Your task to perform on an android device: see sites visited before in the chrome app Image 0: 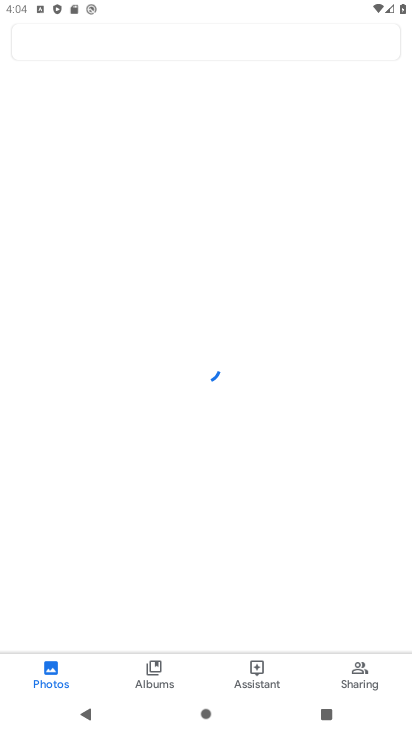
Step 0: press home button
Your task to perform on an android device: see sites visited before in the chrome app Image 1: 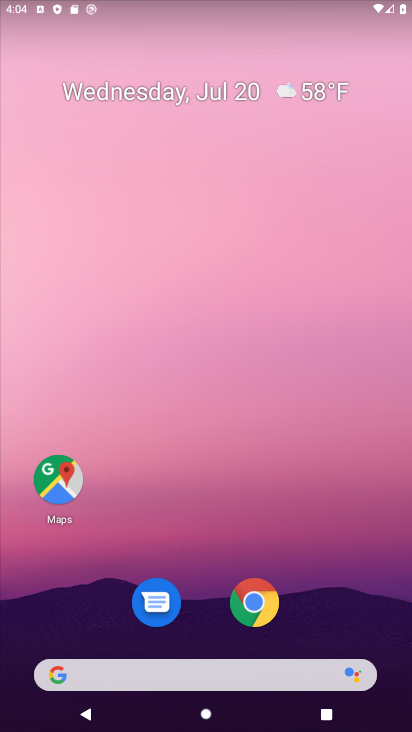
Step 1: click (246, 599)
Your task to perform on an android device: see sites visited before in the chrome app Image 2: 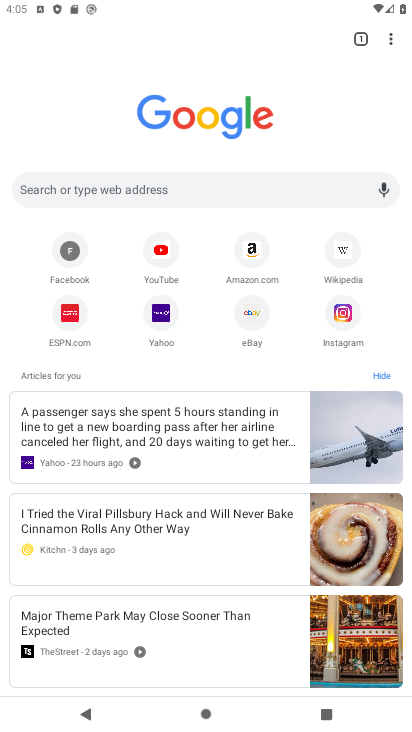
Step 2: click (389, 38)
Your task to perform on an android device: see sites visited before in the chrome app Image 3: 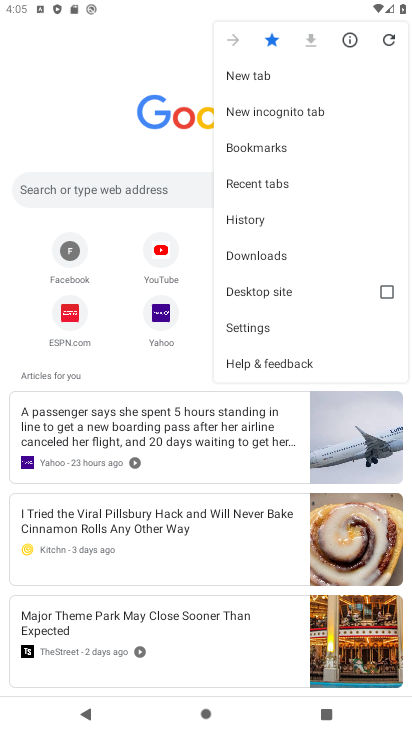
Step 3: click (261, 216)
Your task to perform on an android device: see sites visited before in the chrome app Image 4: 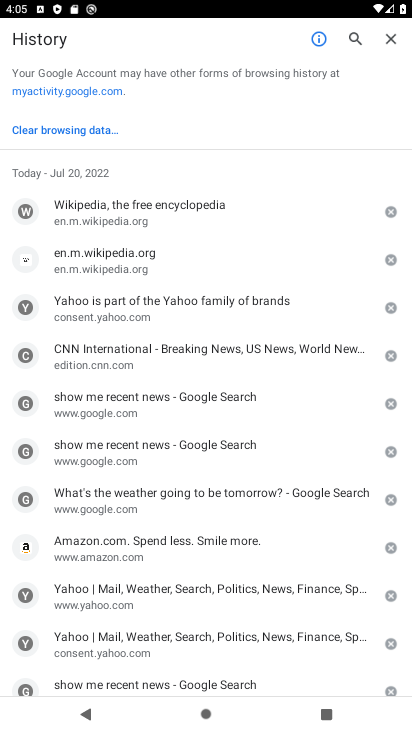
Step 4: task complete